Your task to perform on an android device: toggle notification dots Image 0: 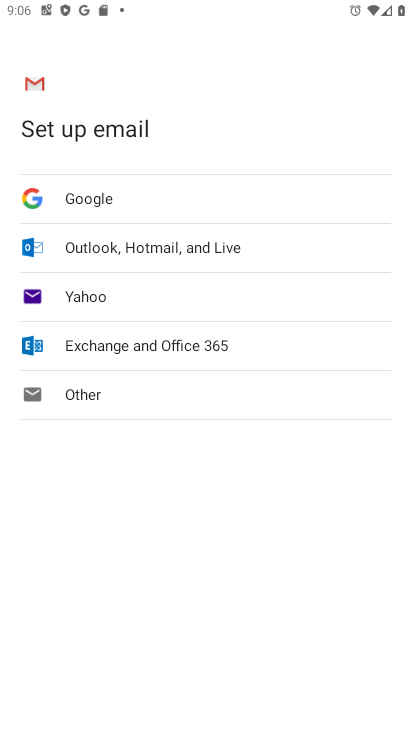
Step 0: press home button
Your task to perform on an android device: toggle notification dots Image 1: 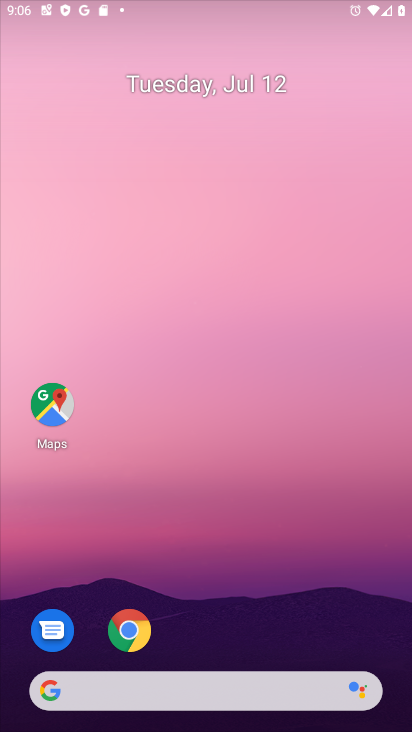
Step 1: drag from (202, 638) to (251, 150)
Your task to perform on an android device: toggle notification dots Image 2: 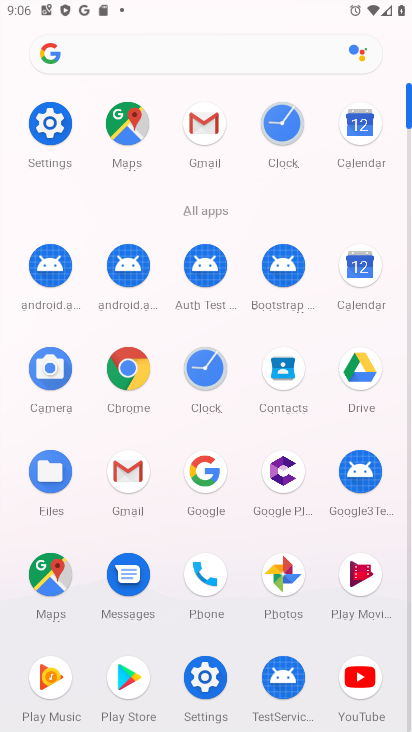
Step 2: click (52, 121)
Your task to perform on an android device: toggle notification dots Image 3: 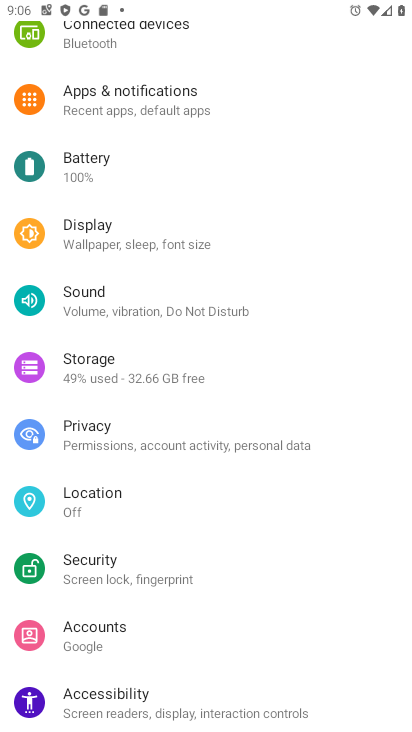
Step 3: click (137, 99)
Your task to perform on an android device: toggle notification dots Image 4: 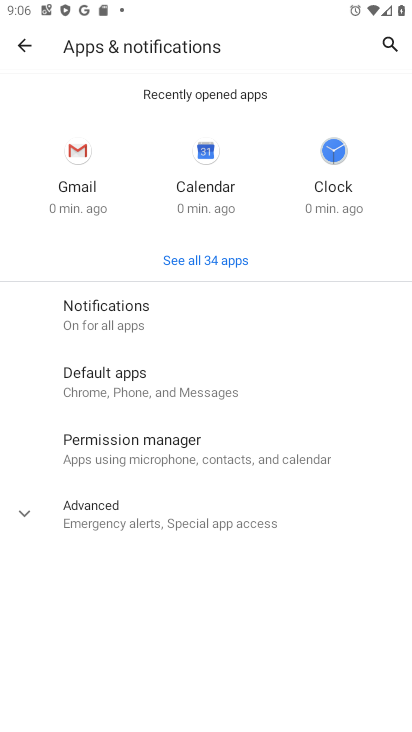
Step 4: click (133, 328)
Your task to perform on an android device: toggle notification dots Image 5: 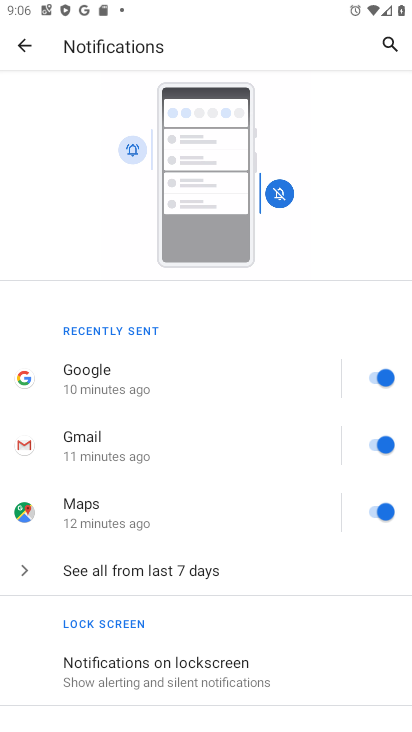
Step 5: drag from (158, 639) to (233, 342)
Your task to perform on an android device: toggle notification dots Image 6: 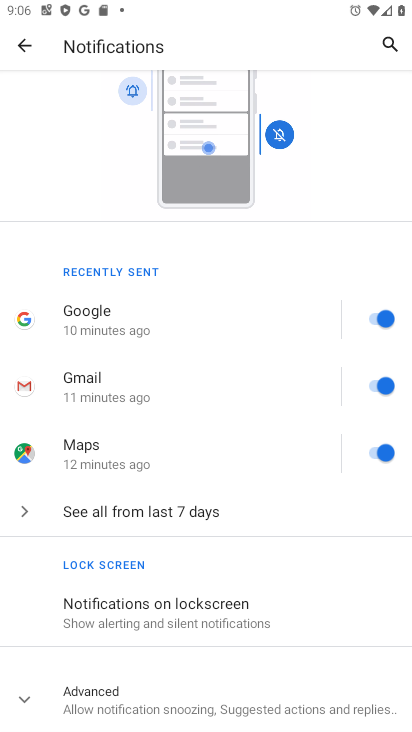
Step 6: click (105, 705)
Your task to perform on an android device: toggle notification dots Image 7: 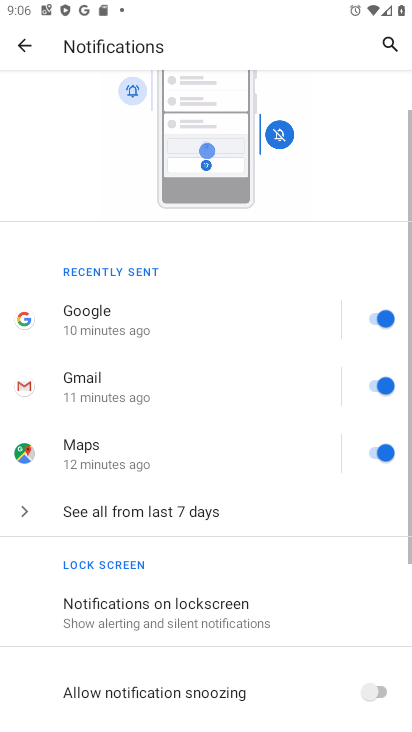
Step 7: drag from (243, 655) to (243, 259)
Your task to perform on an android device: toggle notification dots Image 8: 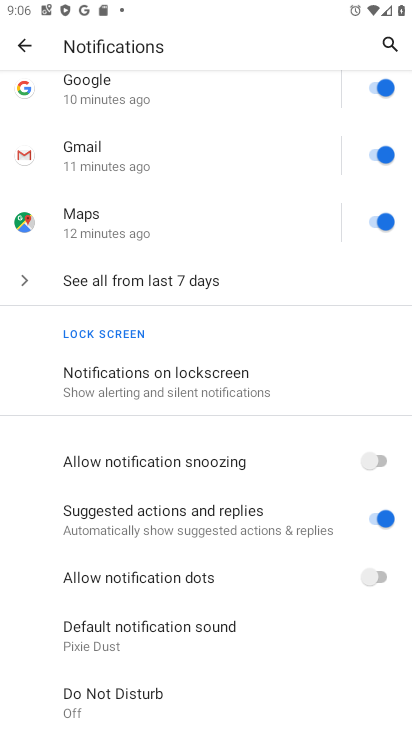
Step 8: click (376, 579)
Your task to perform on an android device: toggle notification dots Image 9: 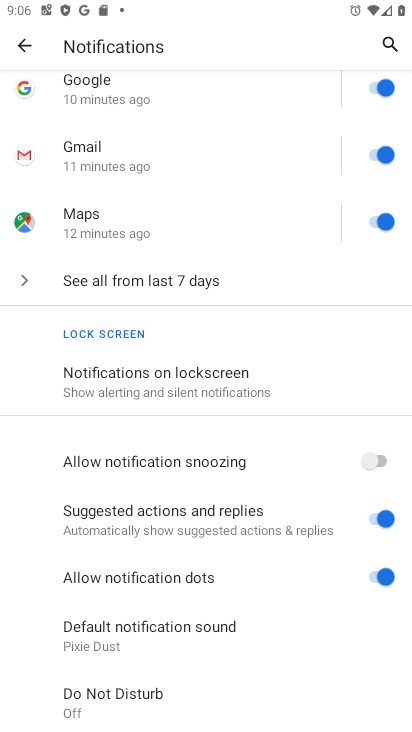
Step 9: task complete